Your task to perform on an android device: Turn on the flashlight Image 0: 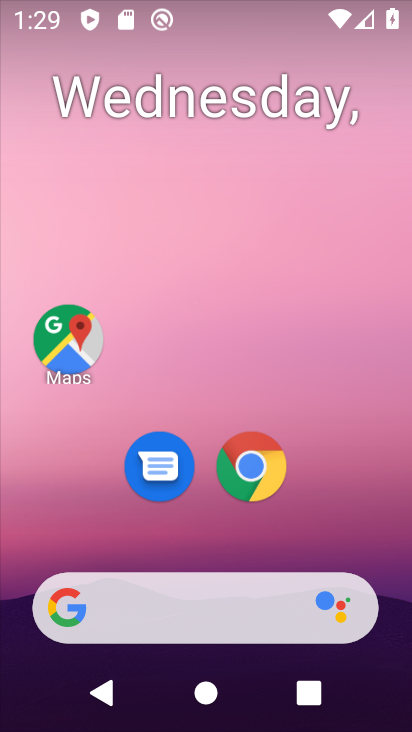
Step 0: drag from (259, 0) to (226, 398)
Your task to perform on an android device: Turn on the flashlight Image 1: 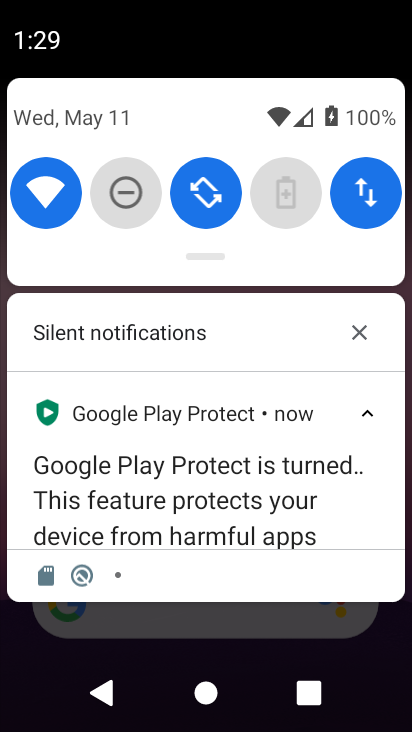
Step 1: task complete